Your task to perform on an android device: Show me popular videos on Youtube Image 0: 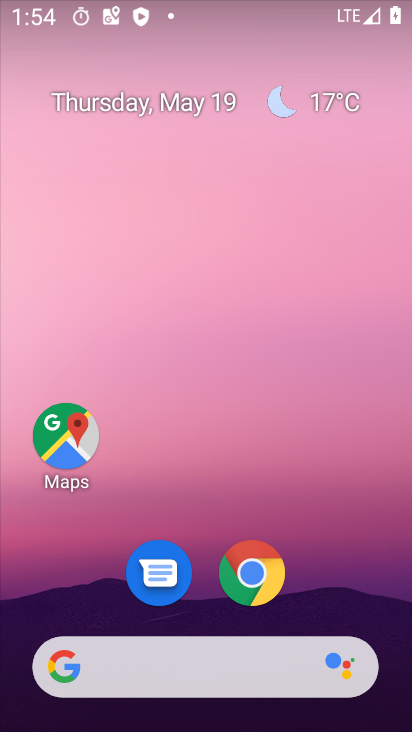
Step 0: drag from (183, 622) to (288, 87)
Your task to perform on an android device: Show me popular videos on Youtube Image 1: 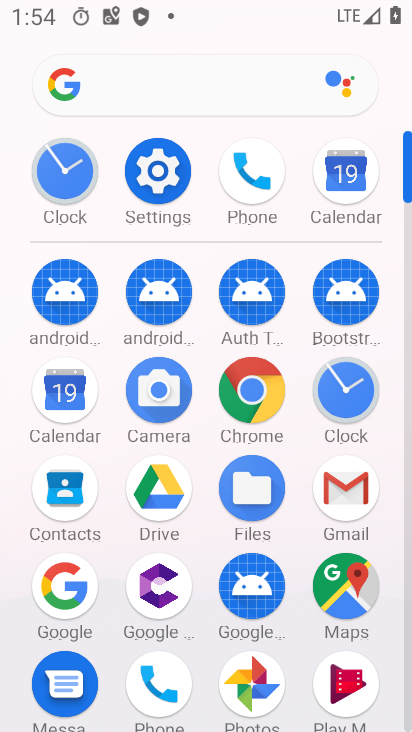
Step 1: drag from (133, 635) to (249, 127)
Your task to perform on an android device: Show me popular videos on Youtube Image 2: 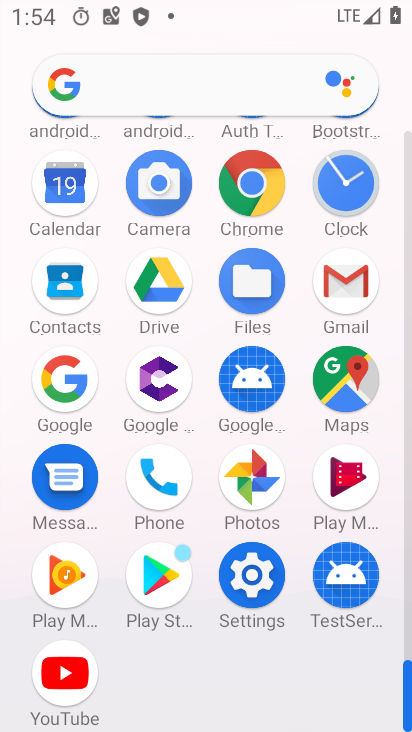
Step 2: click (47, 677)
Your task to perform on an android device: Show me popular videos on Youtube Image 3: 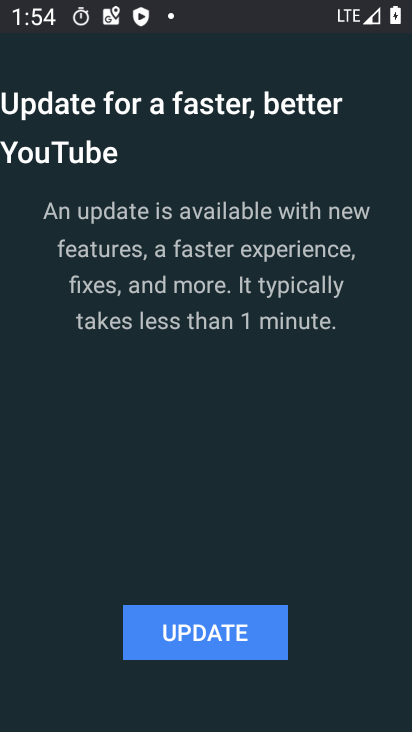
Step 3: click (195, 638)
Your task to perform on an android device: Show me popular videos on Youtube Image 4: 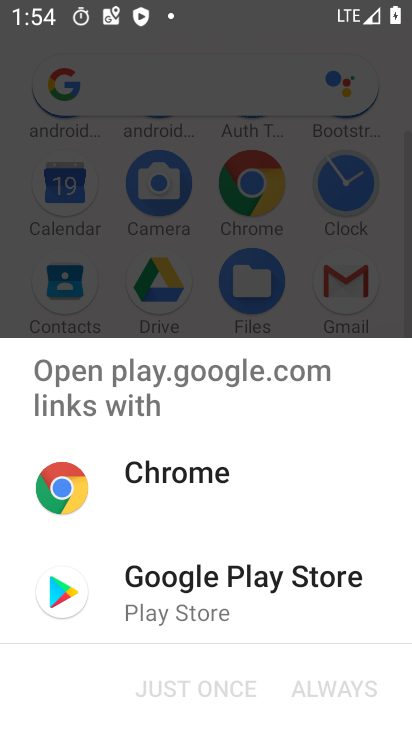
Step 4: click (177, 592)
Your task to perform on an android device: Show me popular videos on Youtube Image 5: 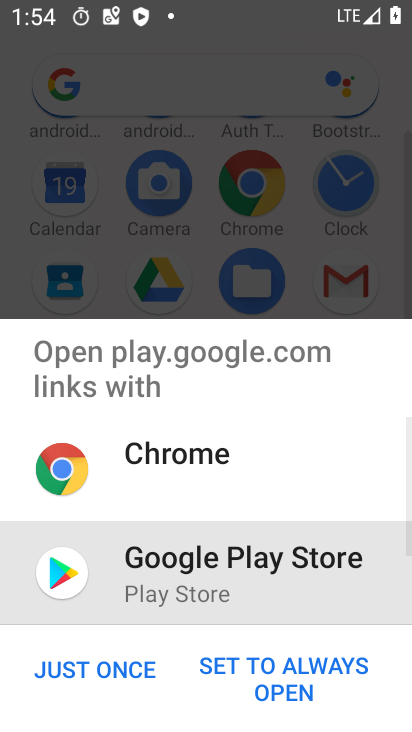
Step 5: click (112, 655)
Your task to perform on an android device: Show me popular videos on Youtube Image 6: 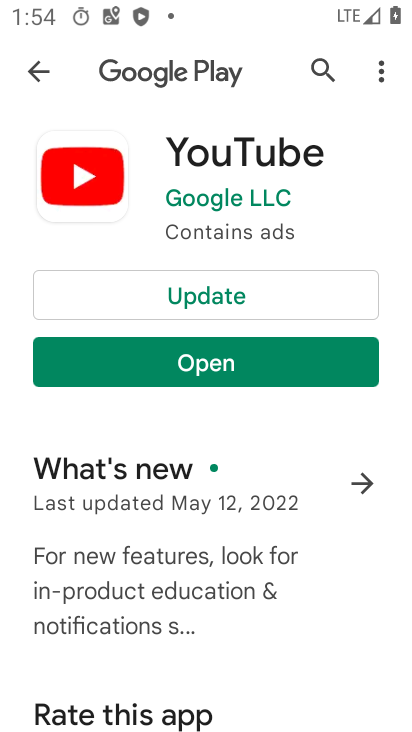
Step 6: click (196, 296)
Your task to perform on an android device: Show me popular videos on Youtube Image 7: 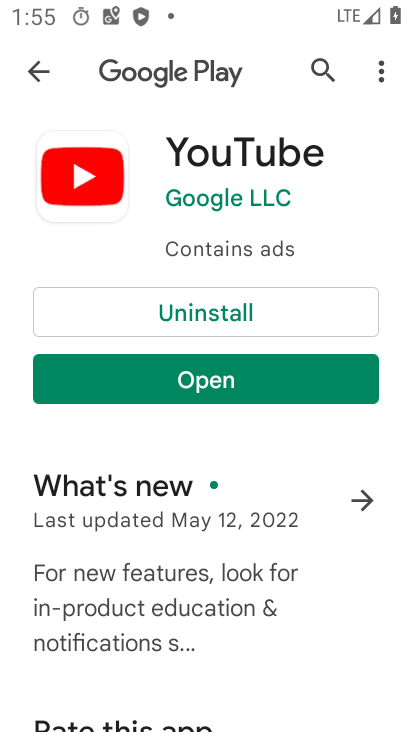
Step 7: click (210, 386)
Your task to perform on an android device: Show me popular videos on Youtube Image 8: 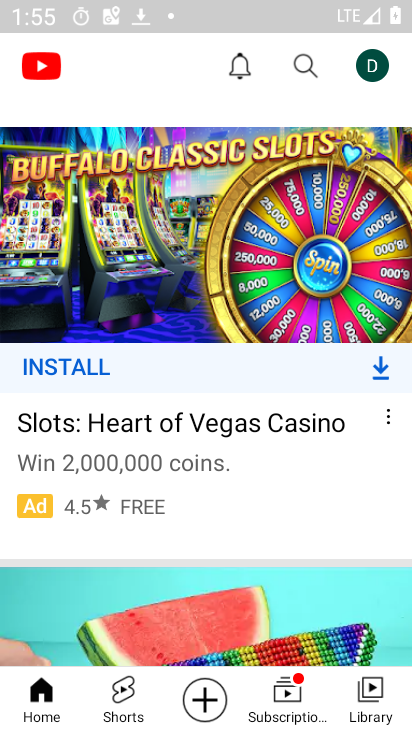
Step 8: drag from (180, 298) to (185, 626)
Your task to perform on an android device: Show me popular videos on Youtube Image 9: 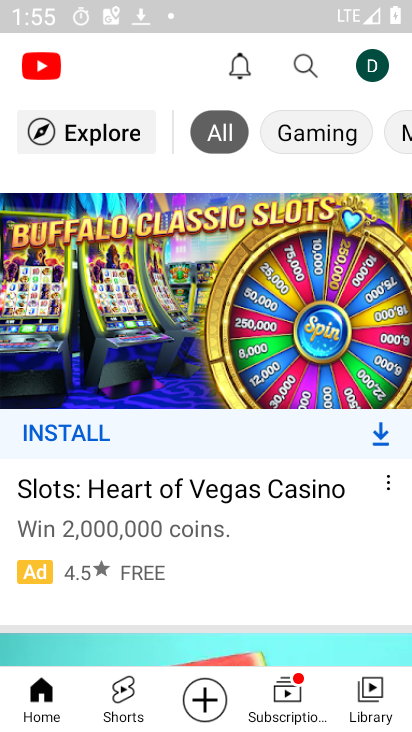
Step 9: click (85, 124)
Your task to perform on an android device: Show me popular videos on Youtube Image 10: 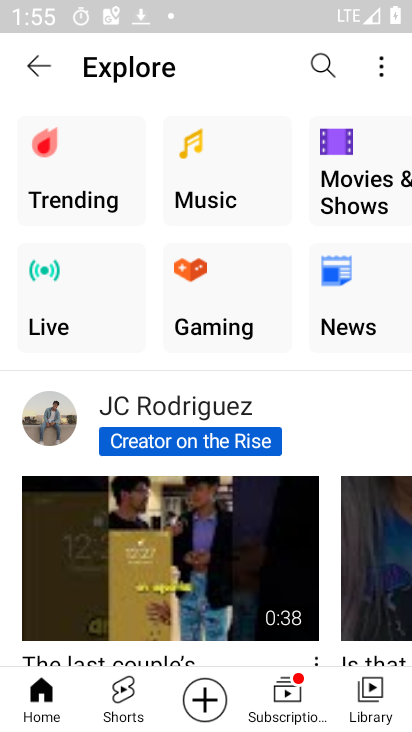
Step 10: click (75, 156)
Your task to perform on an android device: Show me popular videos on Youtube Image 11: 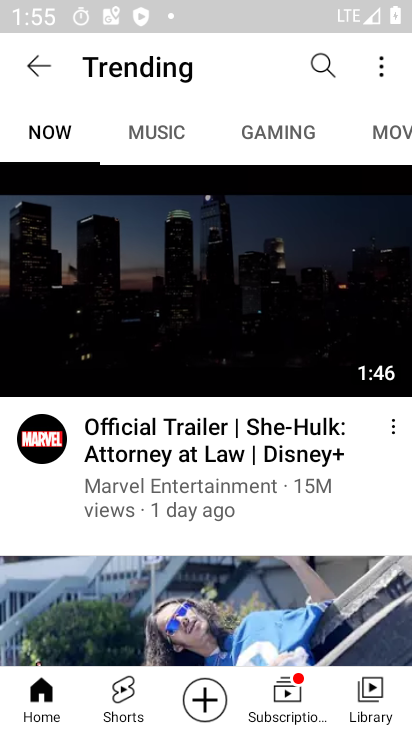
Step 11: task complete